Your task to perform on an android device: open app "Google Keep" (install if not already installed) Image 0: 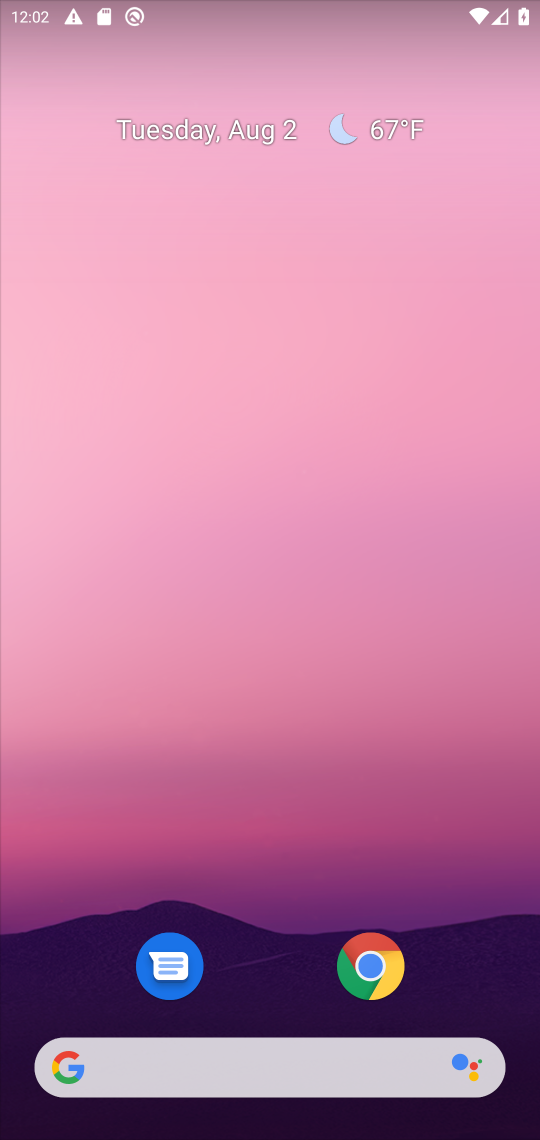
Step 0: press home button
Your task to perform on an android device: open app "Google Keep" (install if not already installed) Image 1: 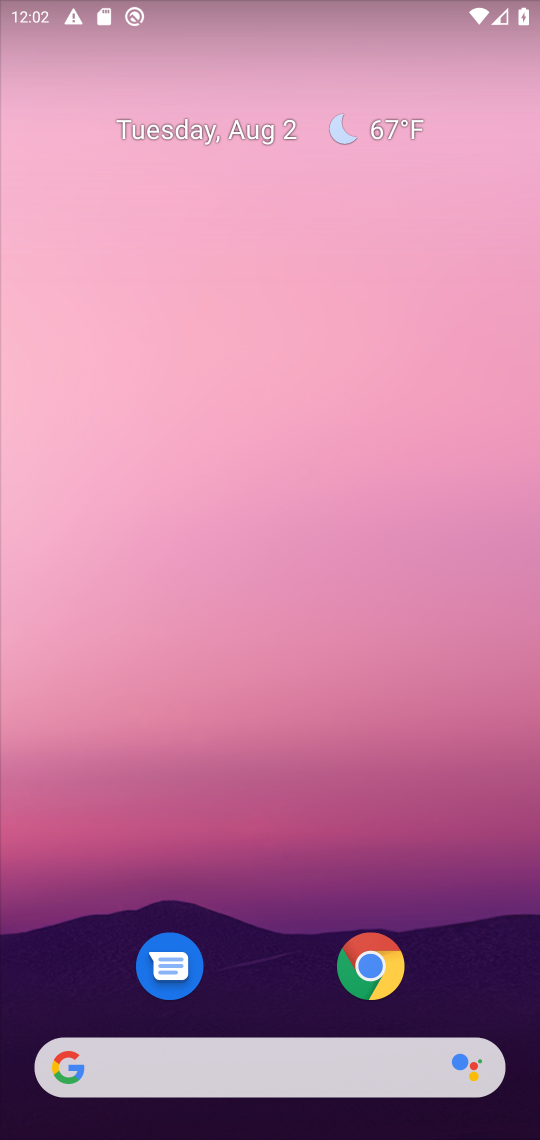
Step 1: drag from (432, 817) to (412, 120)
Your task to perform on an android device: open app "Google Keep" (install if not already installed) Image 2: 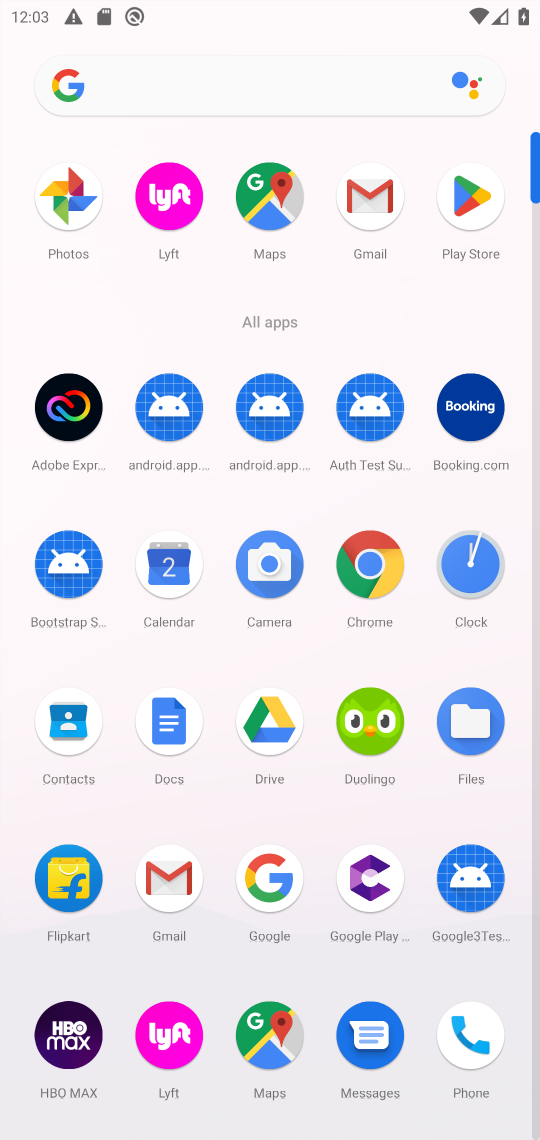
Step 2: click (471, 191)
Your task to perform on an android device: open app "Google Keep" (install if not already installed) Image 3: 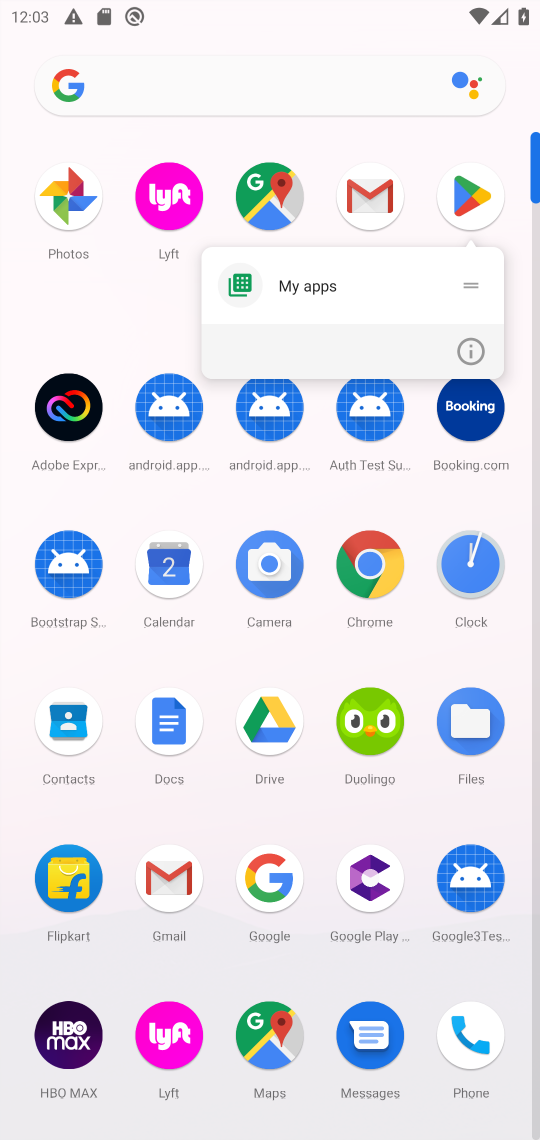
Step 3: click (460, 203)
Your task to perform on an android device: open app "Google Keep" (install if not already installed) Image 4: 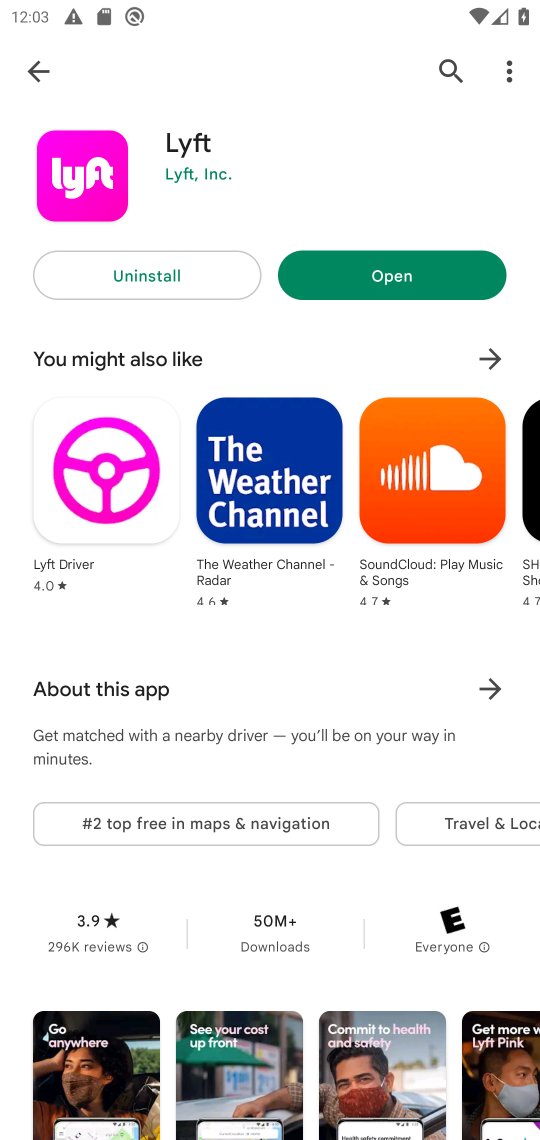
Step 4: click (456, 70)
Your task to perform on an android device: open app "Google Keep" (install if not already installed) Image 5: 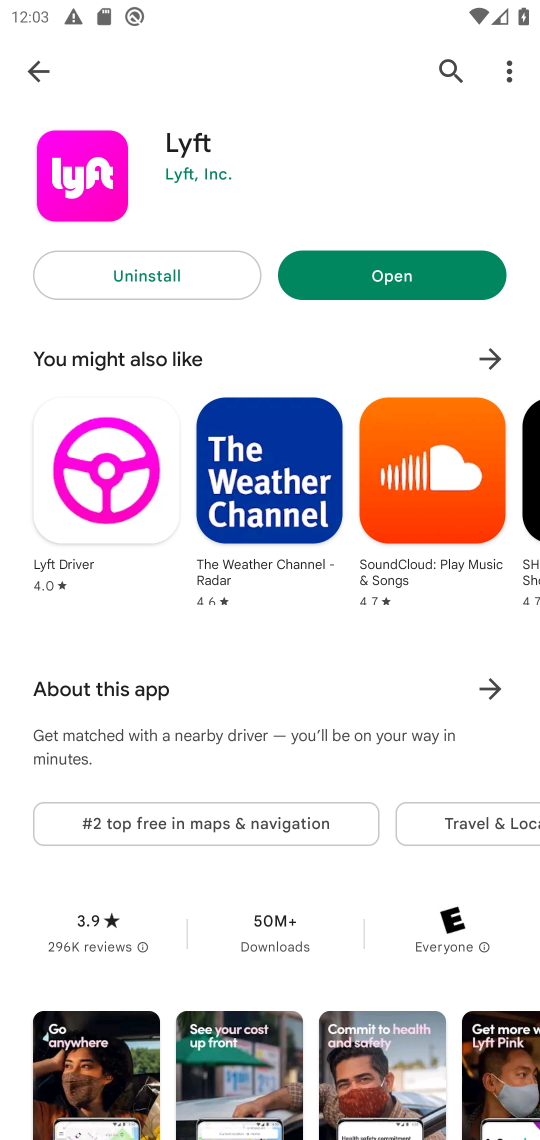
Step 5: click (446, 58)
Your task to perform on an android device: open app "Google Keep" (install if not already installed) Image 6: 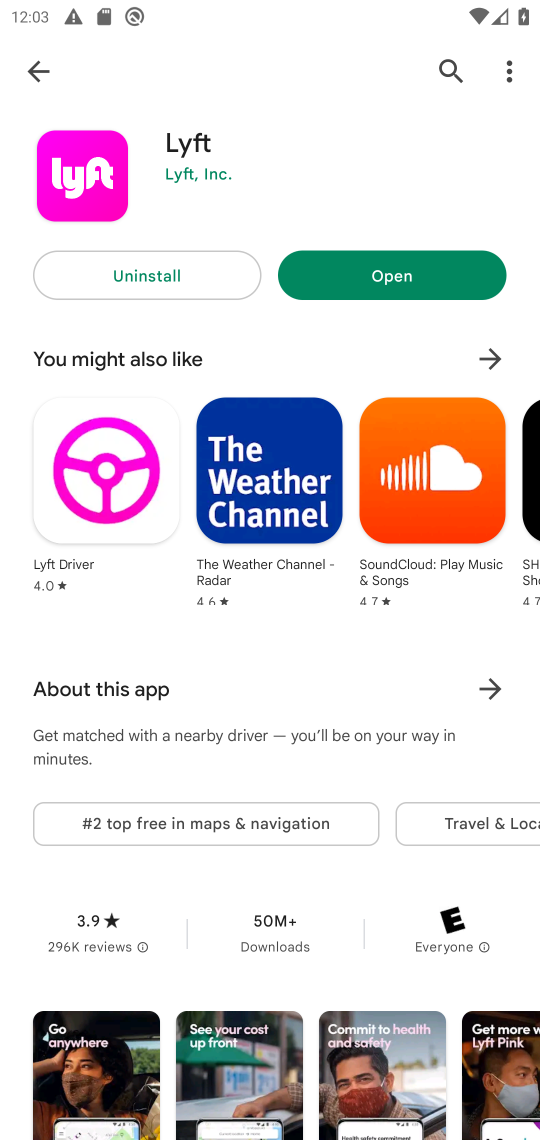
Step 6: click (456, 65)
Your task to perform on an android device: open app "Google Keep" (install if not already installed) Image 7: 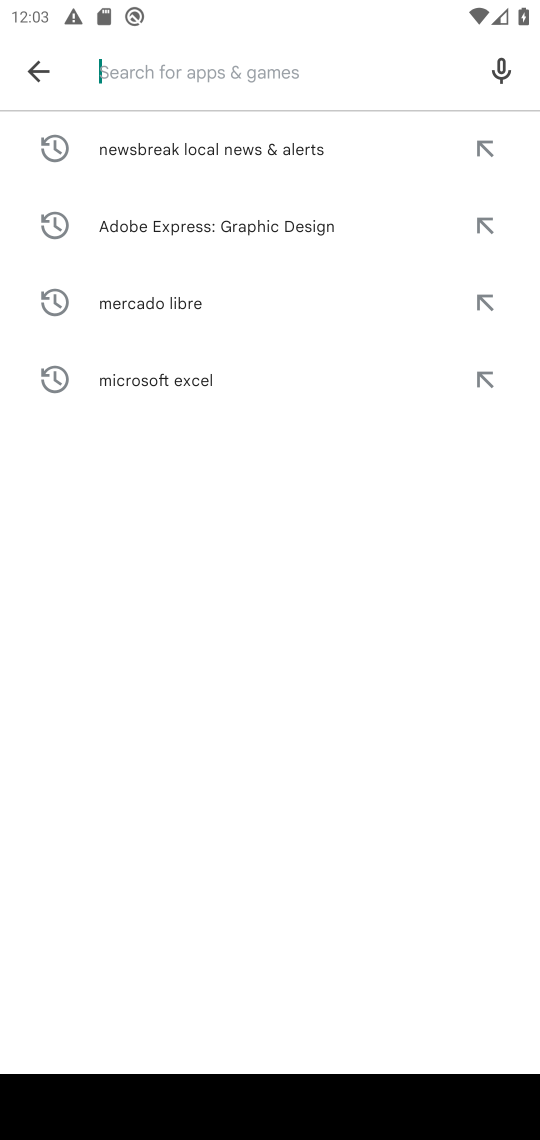
Step 7: click (284, 78)
Your task to perform on an android device: open app "Google Keep" (install if not already installed) Image 8: 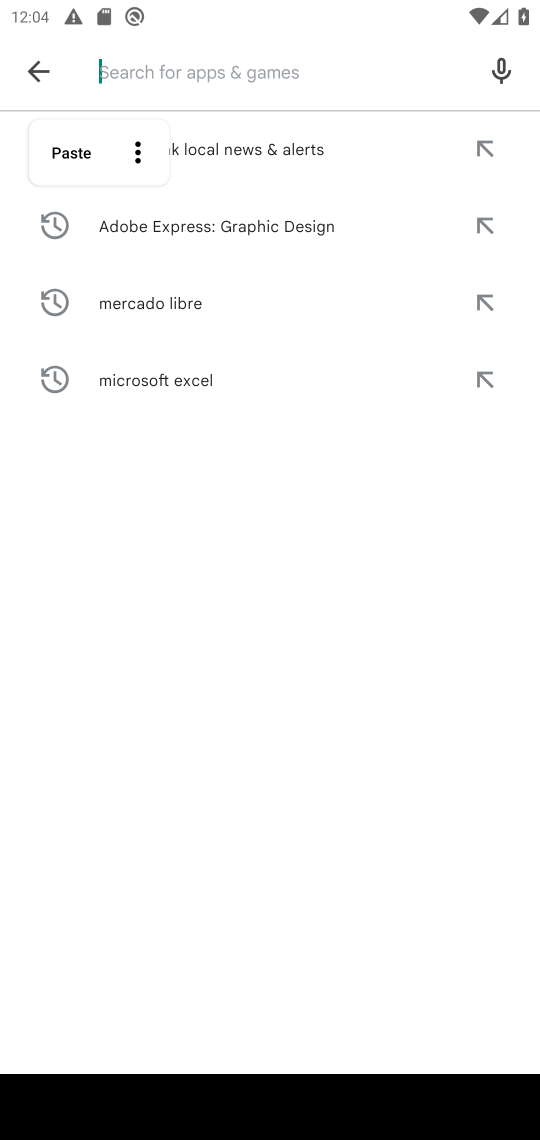
Step 8: type "google keep"
Your task to perform on an android device: open app "Google Keep" (install if not already installed) Image 9: 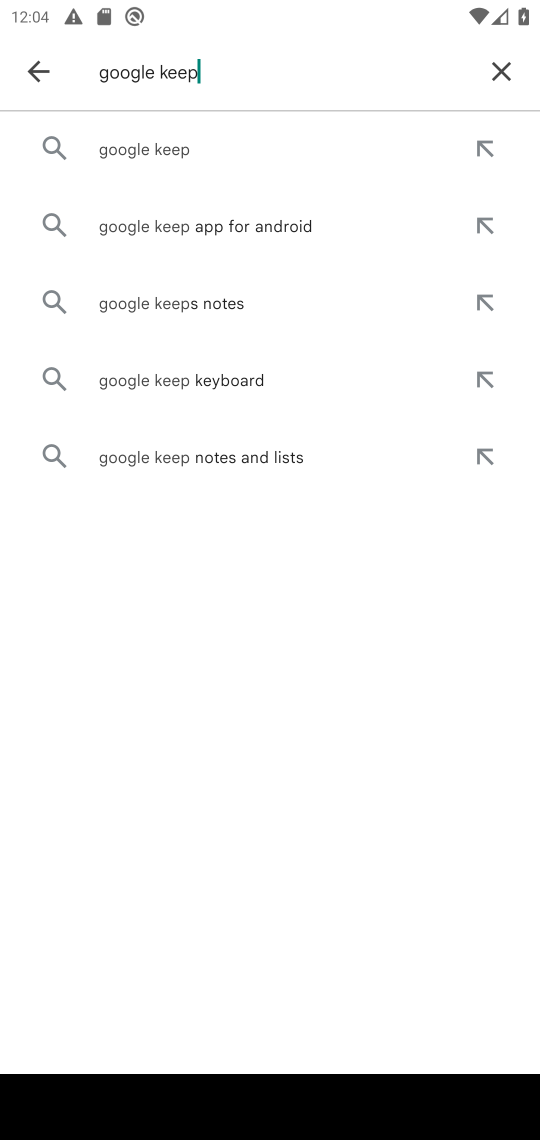
Step 9: click (176, 147)
Your task to perform on an android device: open app "Google Keep" (install if not already installed) Image 10: 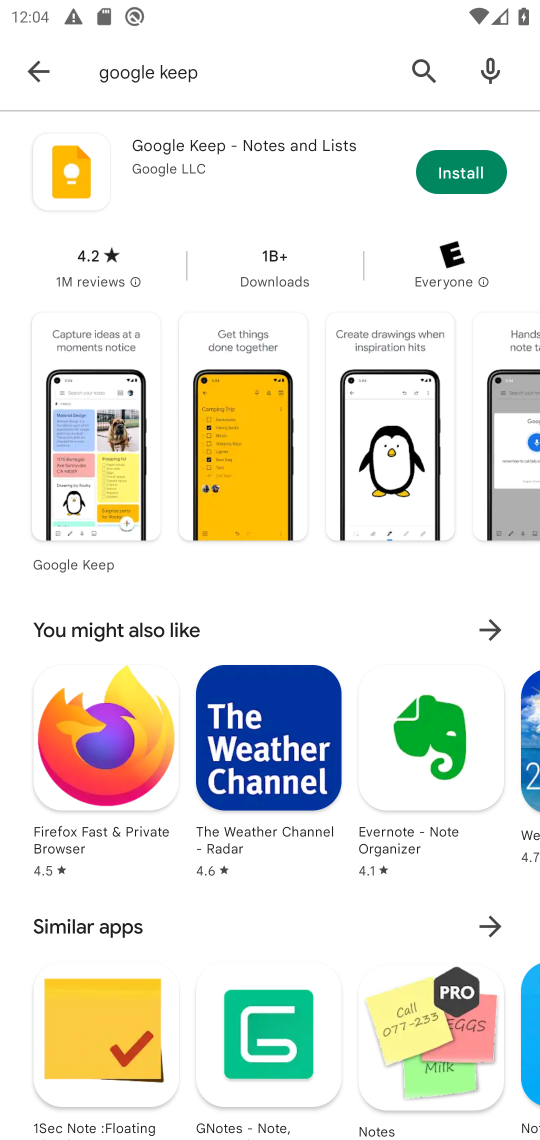
Step 10: click (458, 179)
Your task to perform on an android device: open app "Google Keep" (install if not already installed) Image 11: 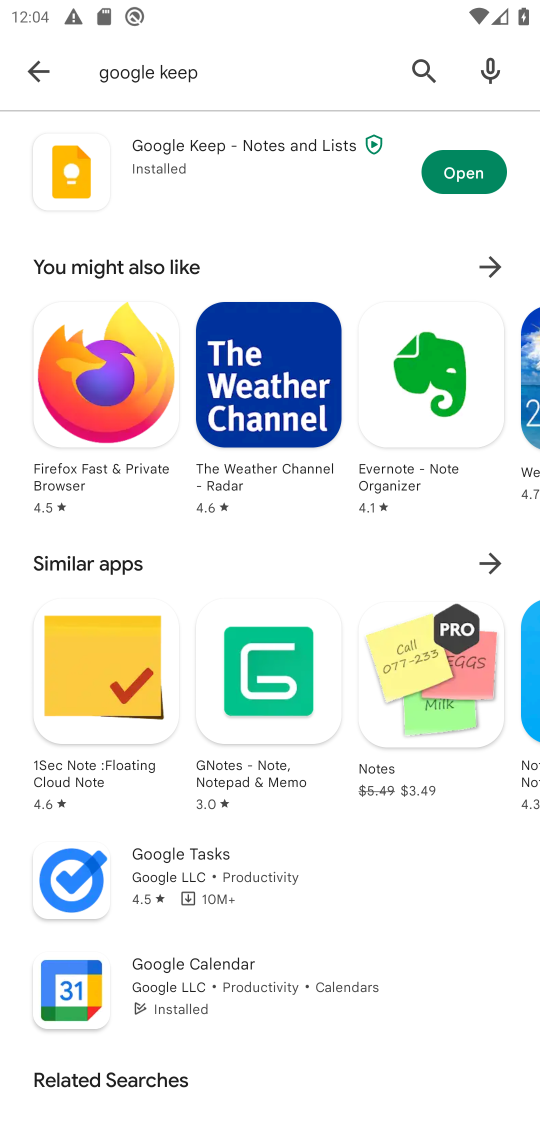
Step 11: click (455, 178)
Your task to perform on an android device: open app "Google Keep" (install if not already installed) Image 12: 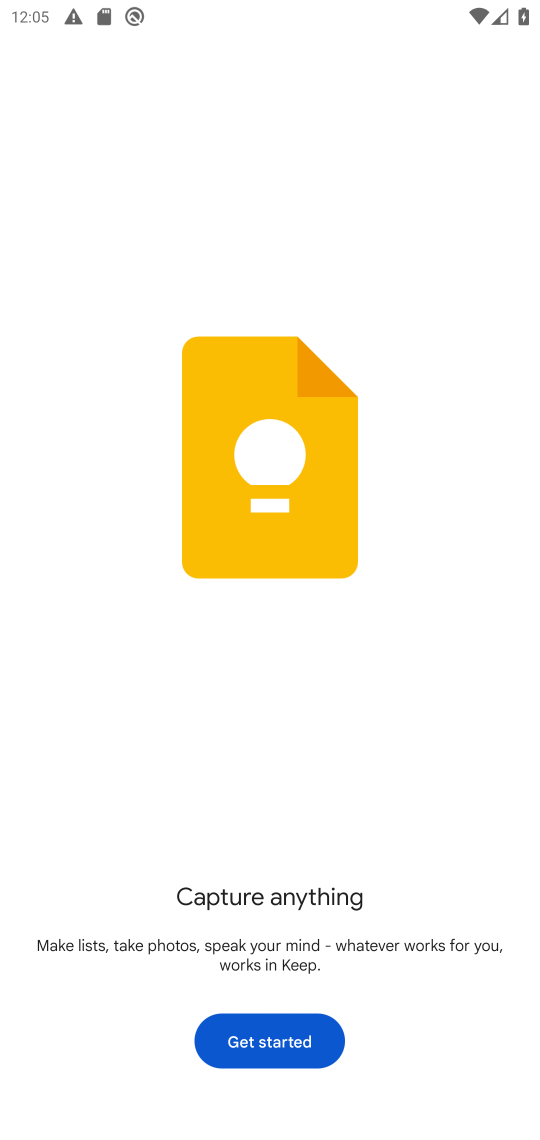
Step 12: task complete